Your task to perform on an android device: What's the news? Image 0: 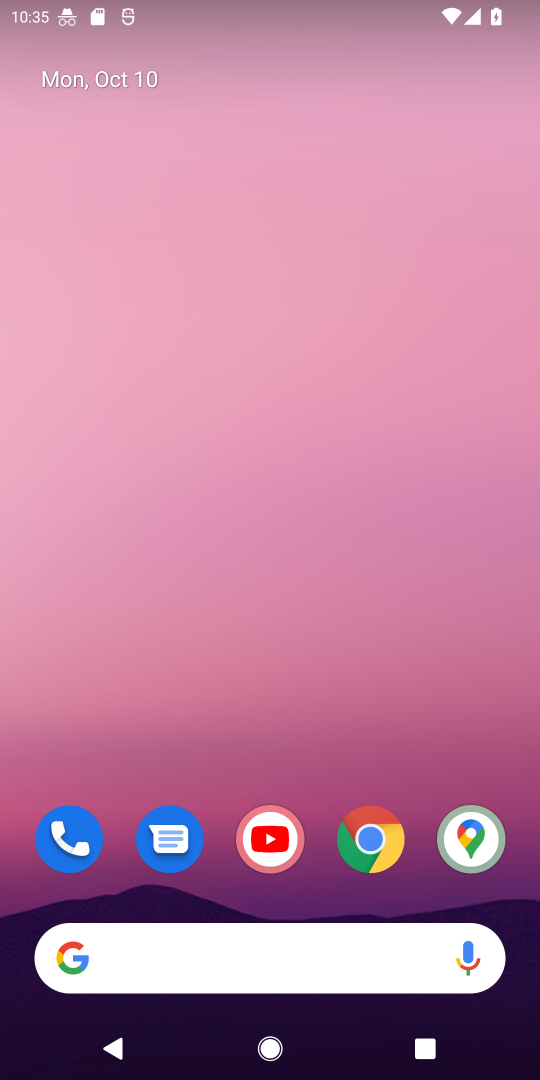
Step 0: drag from (314, 895) to (263, 153)
Your task to perform on an android device: What's the news? Image 1: 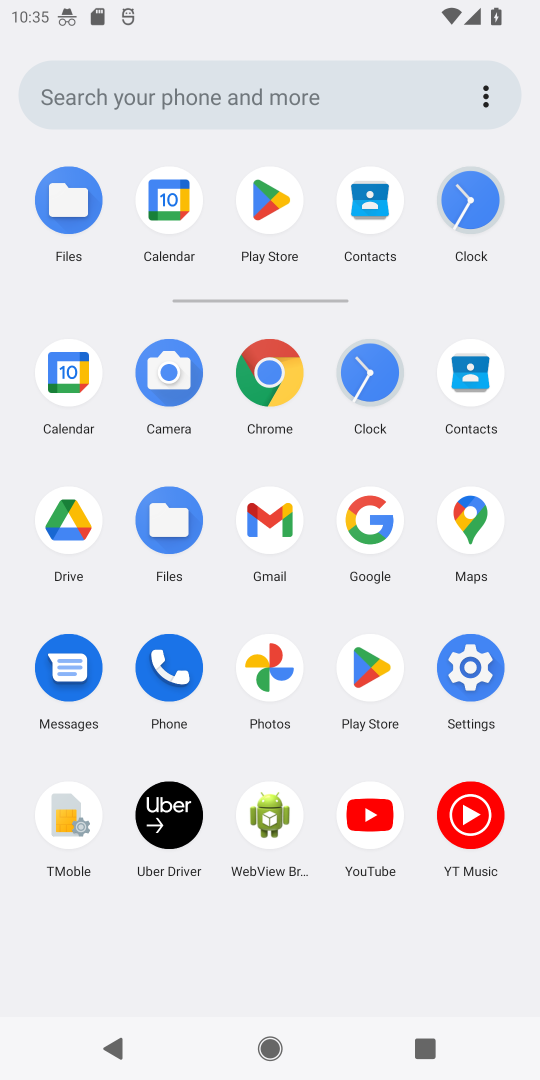
Step 1: click (266, 379)
Your task to perform on an android device: What's the news? Image 2: 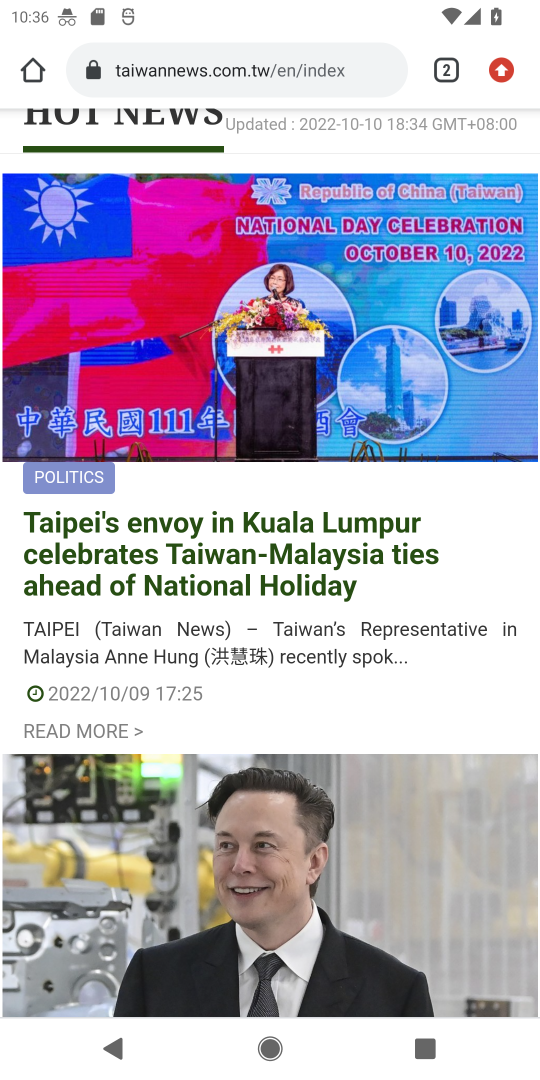
Step 2: click (327, 66)
Your task to perform on an android device: What's the news? Image 3: 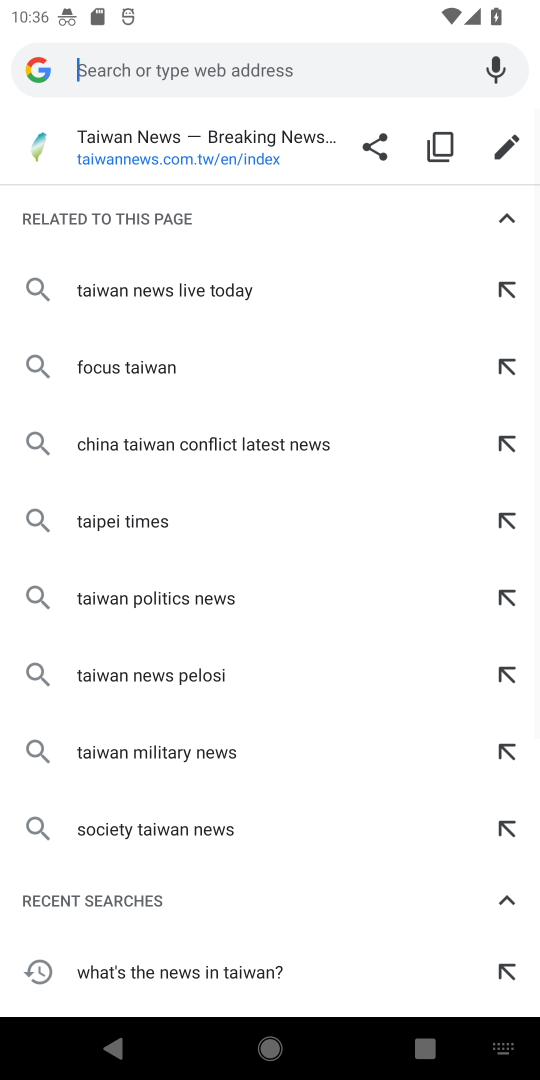
Step 3: type "news"
Your task to perform on an android device: What's the news? Image 4: 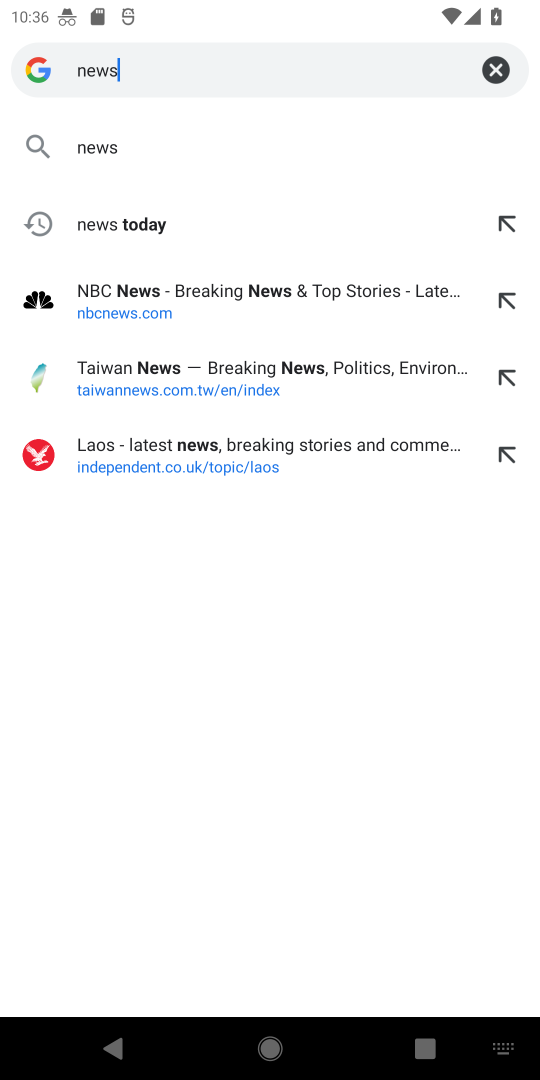
Step 4: press enter
Your task to perform on an android device: What's the news? Image 5: 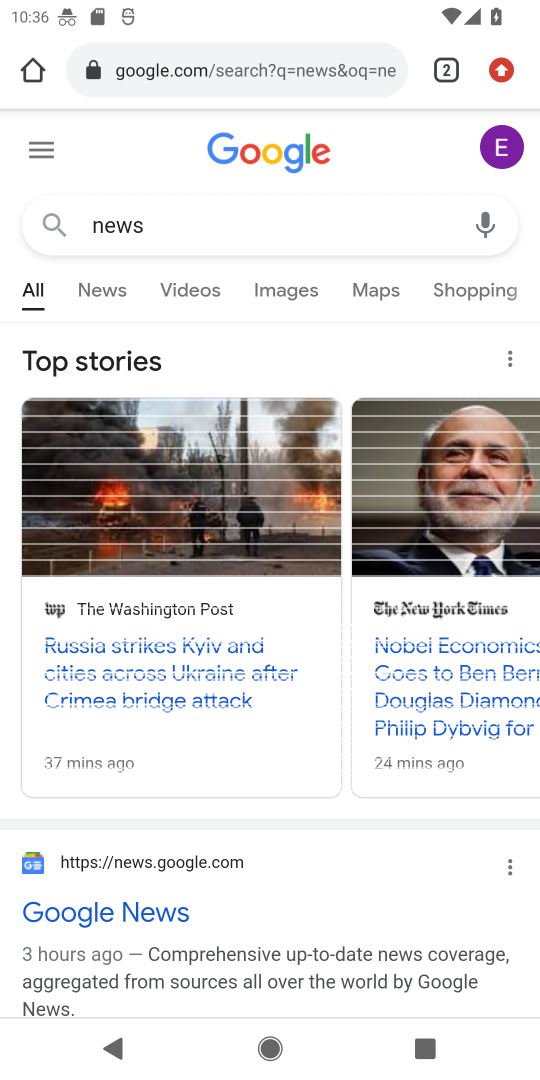
Step 5: click (113, 904)
Your task to perform on an android device: What's the news? Image 6: 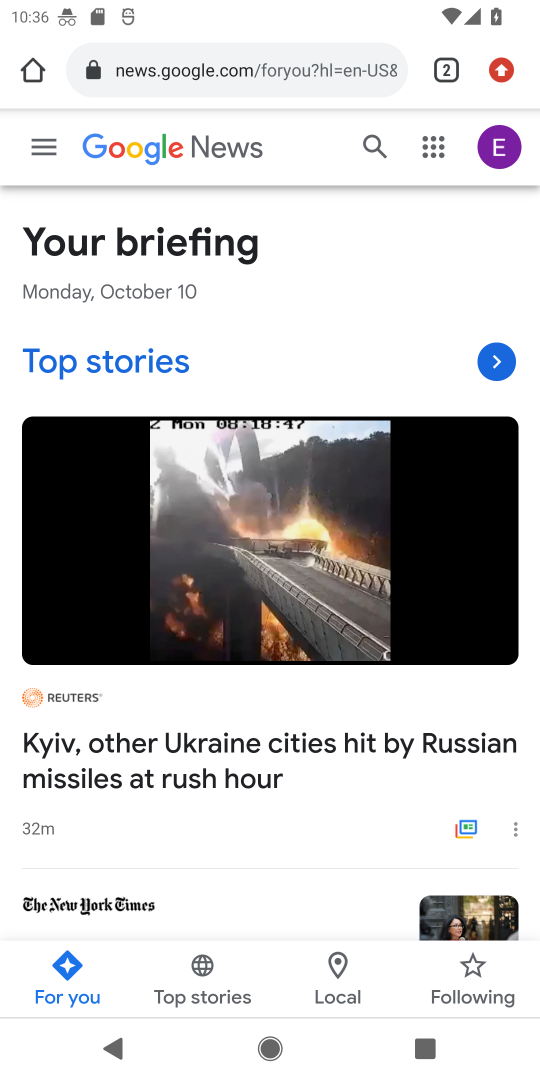
Step 6: task complete